Your task to perform on an android device: Go to Maps Image 0: 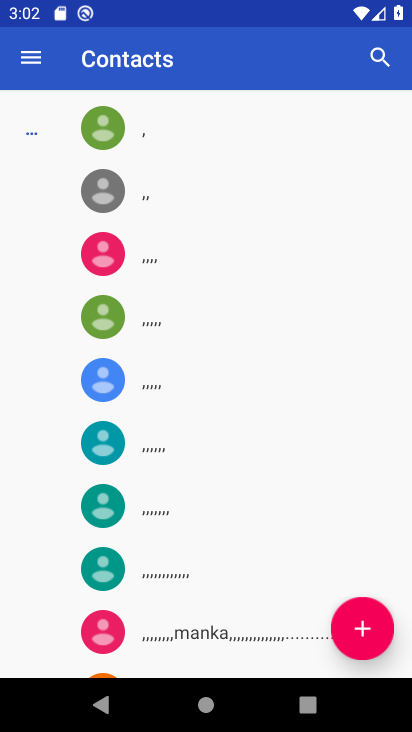
Step 0: press home button
Your task to perform on an android device: Go to Maps Image 1: 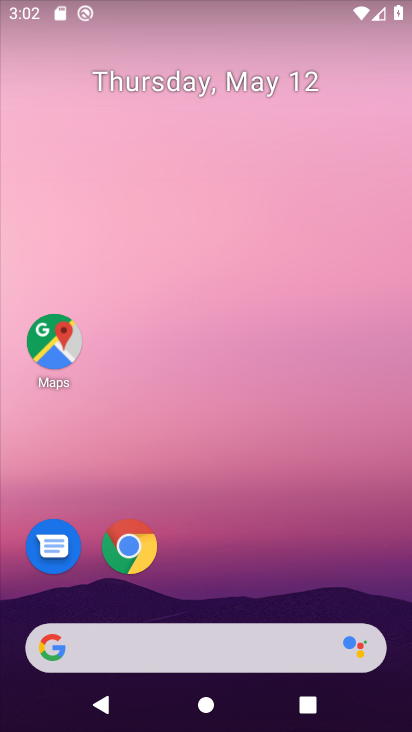
Step 1: drag from (235, 561) to (235, 106)
Your task to perform on an android device: Go to Maps Image 2: 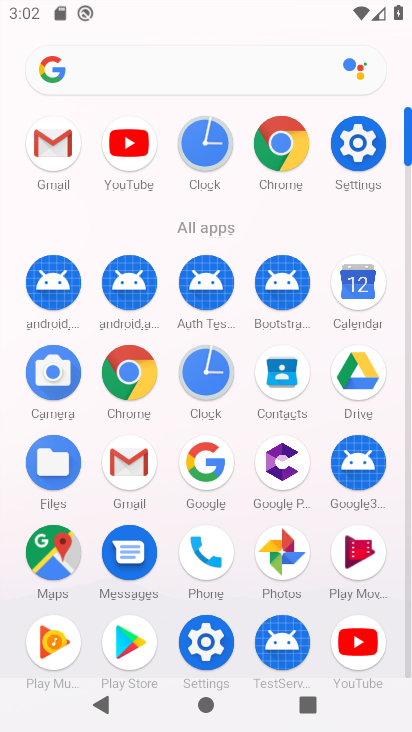
Step 2: click (59, 549)
Your task to perform on an android device: Go to Maps Image 3: 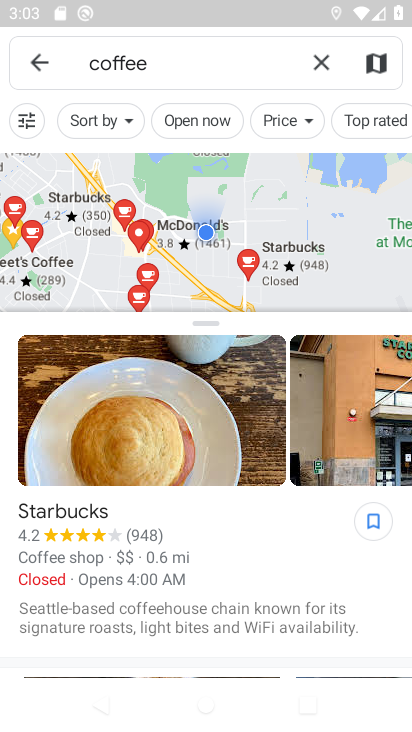
Step 3: click (318, 59)
Your task to perform on an android device: Go to Maps Image 4: 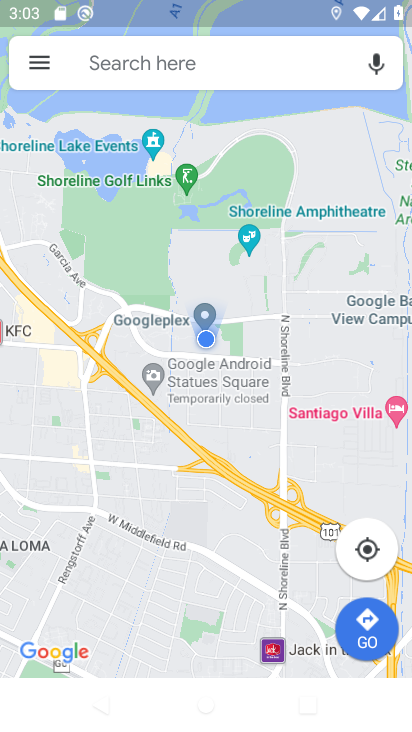
Step 4: task complete